Your task to perform on an android device: add a contact in the contacts app Image 0: 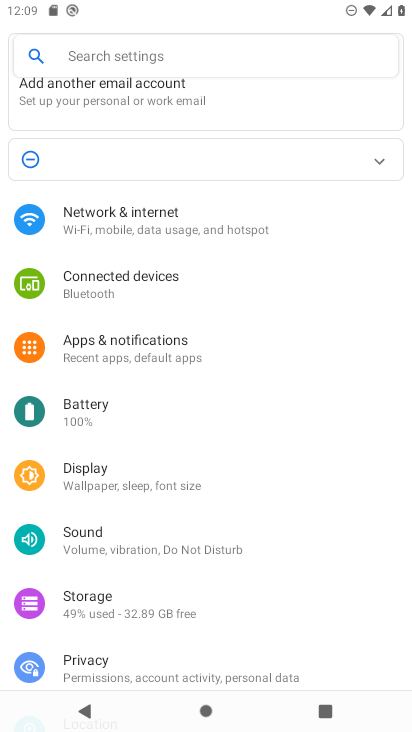
Step 0: press home button
Your task to perform on an android device: add a contact in the contacts app Image 1: 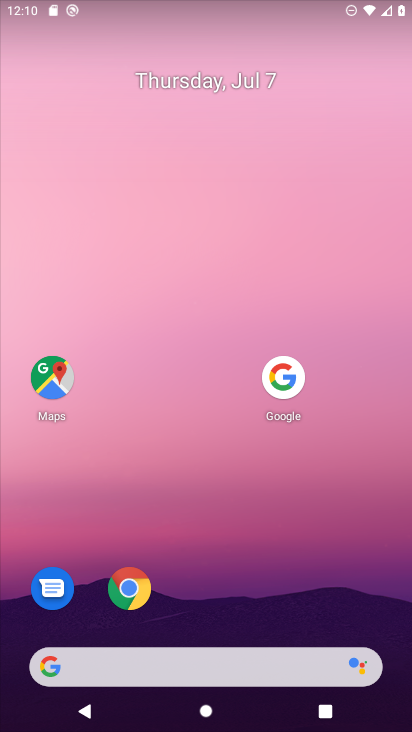
Step 1: drag from (209, 662) to (218, 48)
Your task to perform on an android device: add a contact in the contacts app Image 2: 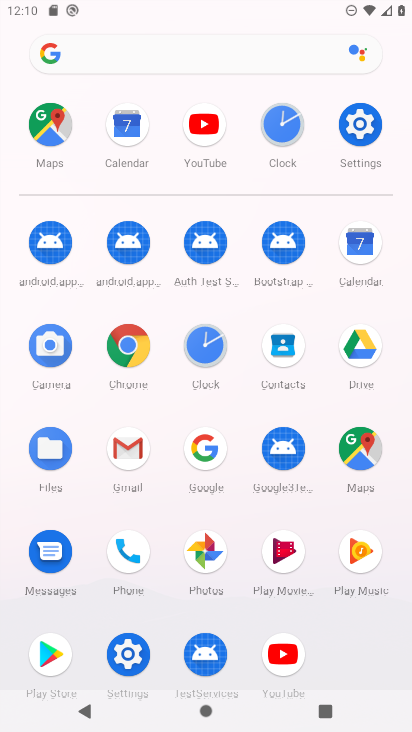
Step 2: click (282, 354)
Your task to perform on an android device: add a contact in the contacts app Image 3: 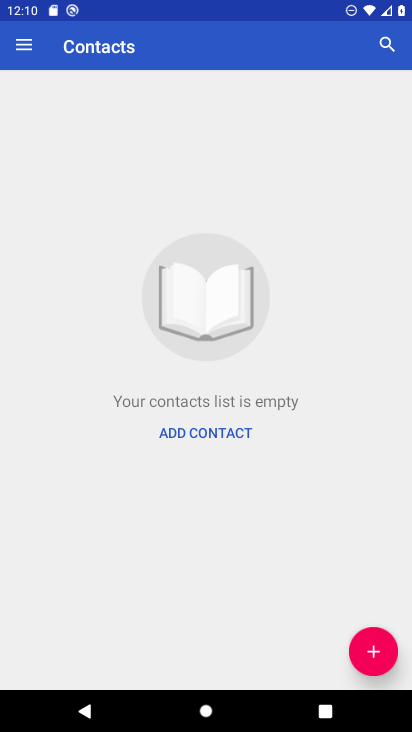
Step 3: click (380, 649)
Your task to perform on an android device: add a contact in the contacts app Image 4: 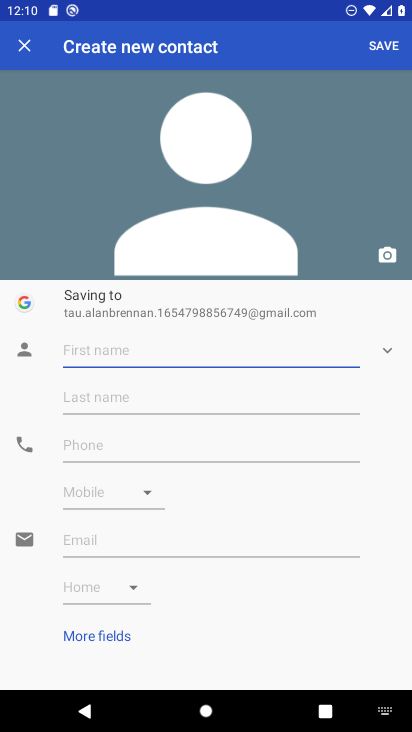
Step 4: click (144, 342)
Your task to perform on an android device: add a contact in the contacts app Image 5: 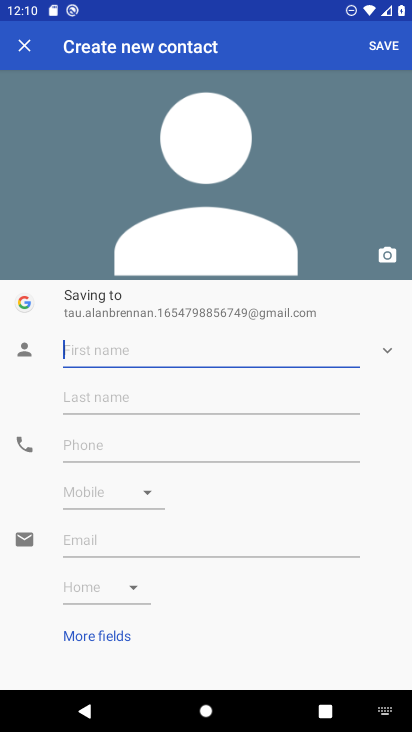
Step 5: type "abcd"
Your task to perform on an android device: add a contact in the contacts app Image 6: 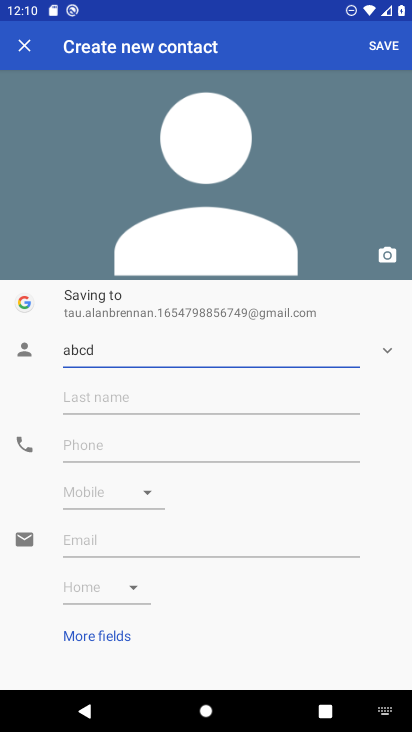
Step 6: click (99, 443)
Your task to perform on an android device: add a contact in the contacts app Image 7: 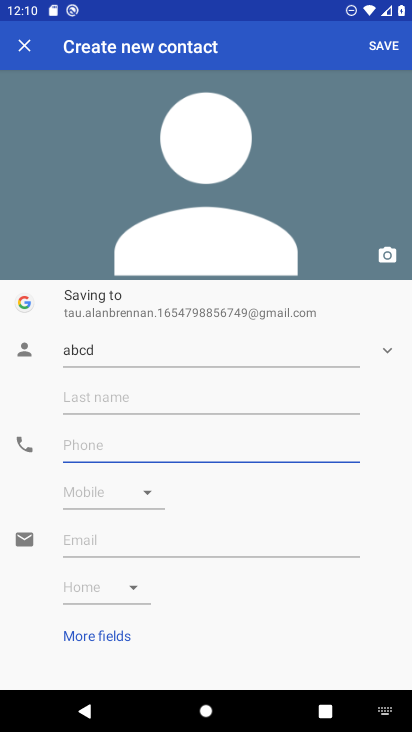
Step 7: type "432657778"
Your task to perform on an android device: add a contact in the contacts app Image 8: 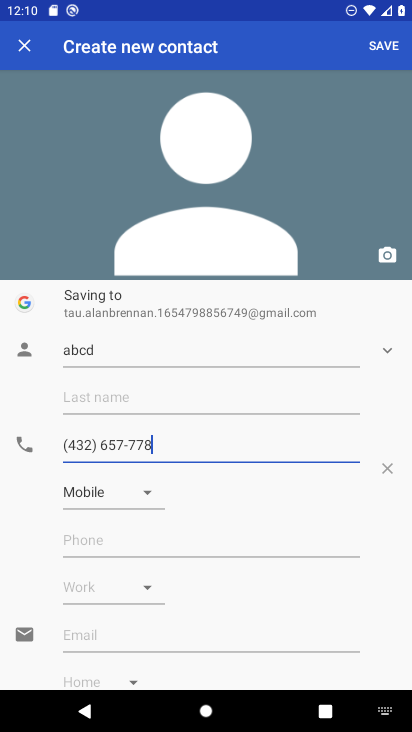
Step 8: click (391, 48)
Your task to perform on an android device: add a contact in the contacts app Image 9: 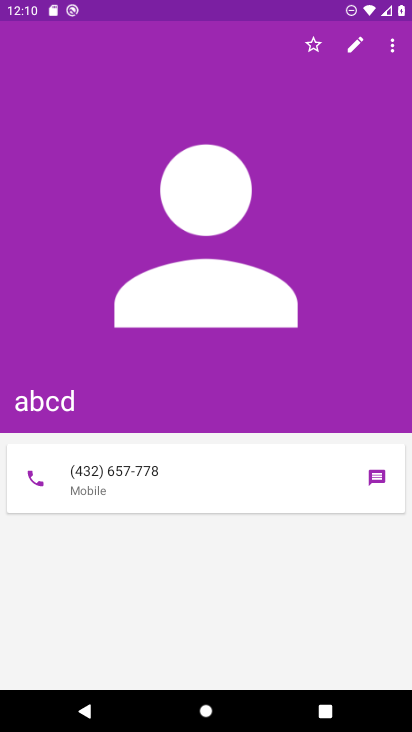
Step 9: task complete